Your task to perform on an android device: Open calendar and show me the third week of next month Image 0: 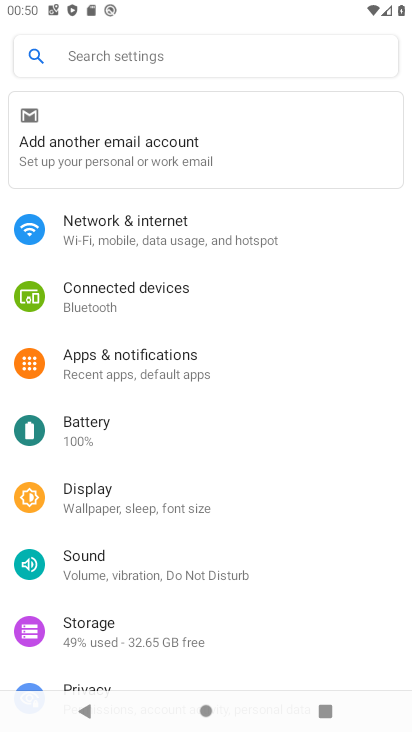
Step 0: drag from (35, 598) to (258, 79)
Your task to perform on an android device: Open calendar and show me the third week of next month Image 1: 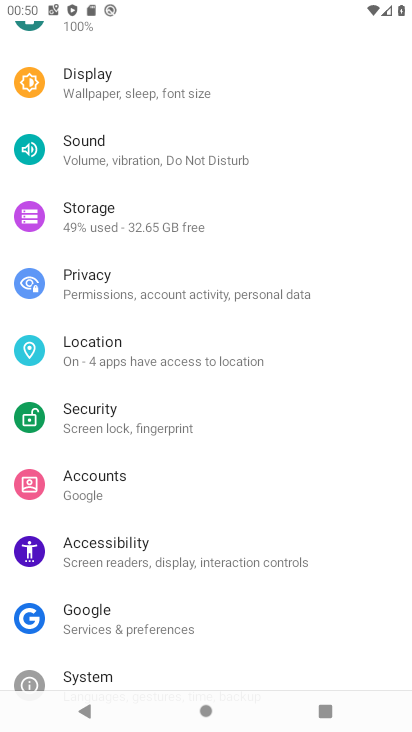
Step 1: press home button
Your task to perform on an android device: Open calendar and show me the third week of next month Image 2: 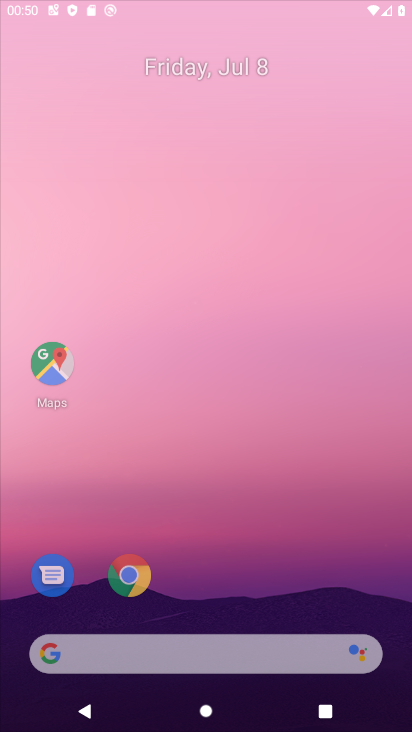
Step 2: drag from (225, 568) to (305, 2)
Your task to perform on an android device: Open calendar and show me the third week of next month Image 3: 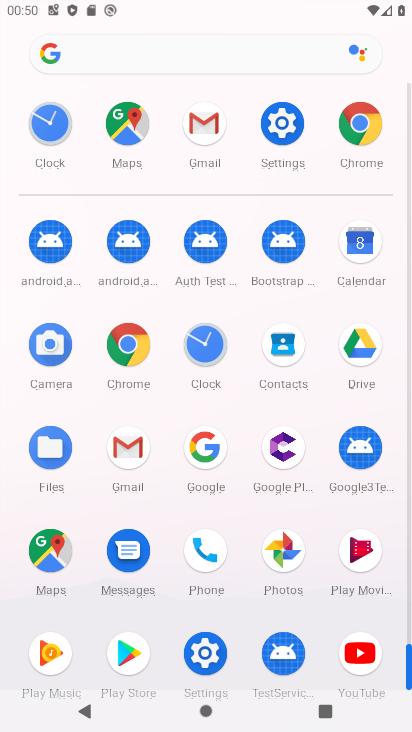
Step 3: click (344, 241)
Your task to perform on an android device: Open calendar and show me the third week of next month Image 4: 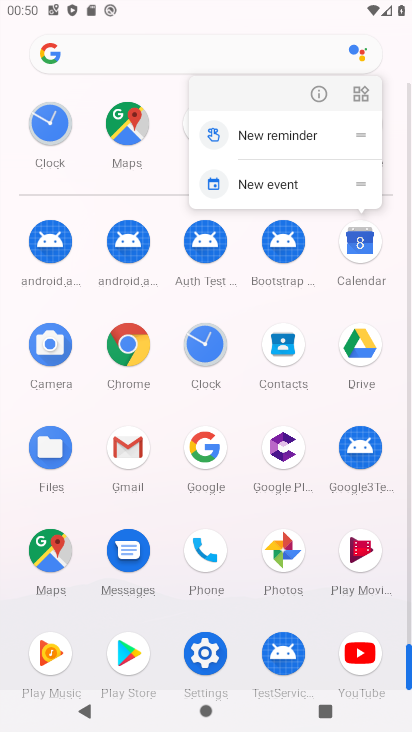
Step 4: click (321, 88)
Your task to perform on an android device: Open calendar and show me the third week of next month Image 5: 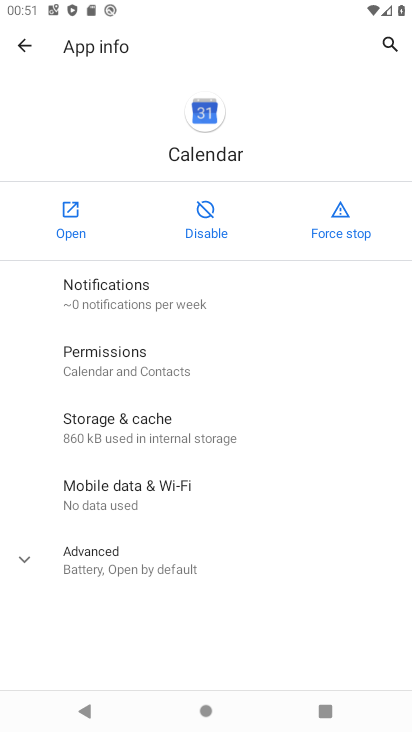
Step 5: click (70, 230)
Your task to perform on an android device: Open calendar and show me the third week of next month Image 6: 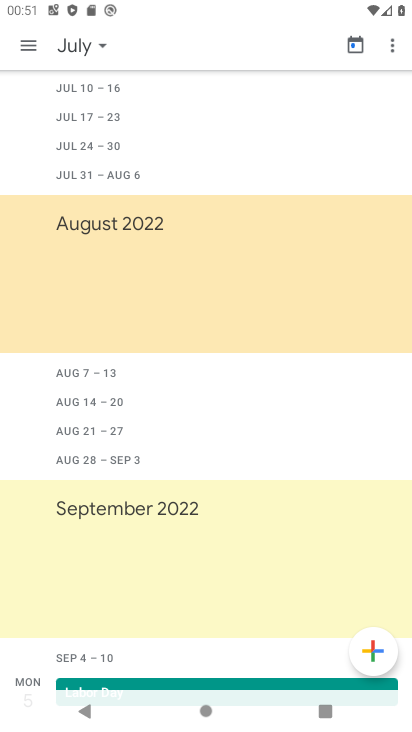
Step 6: click (90, 43)
Your task to perform on an android device: Open calendar and show me the third week of next month Image 7: 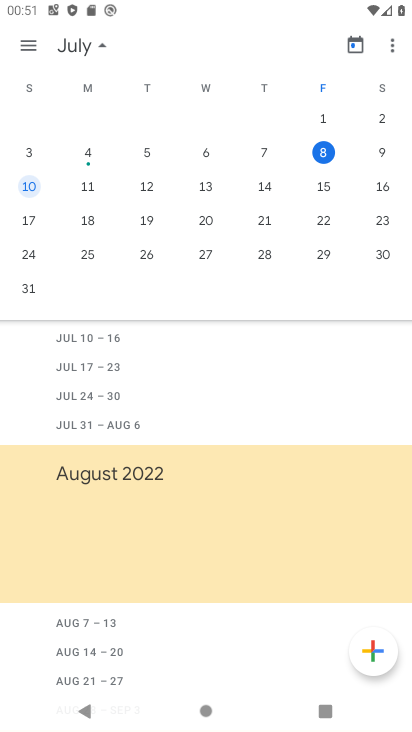
Step 7: click (382, 152)
Your task to perform on an android device: Open calendar and show me the third week of next month Image 8: 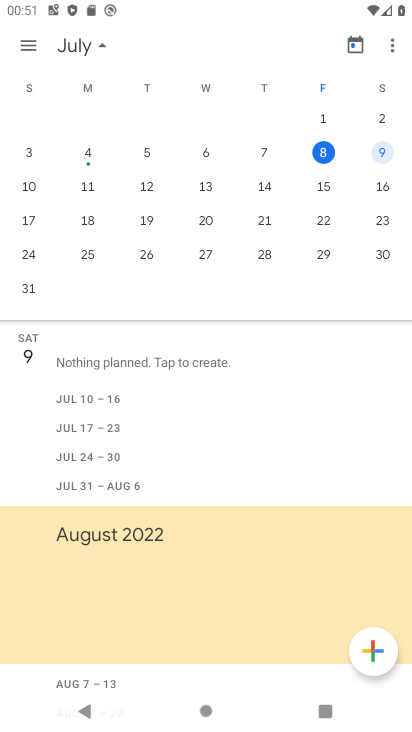
Step 8: drag from (215, 503) to (201, 358)
Your task to perform on an android device: Open calendar and show me the third week of next month Image 9: 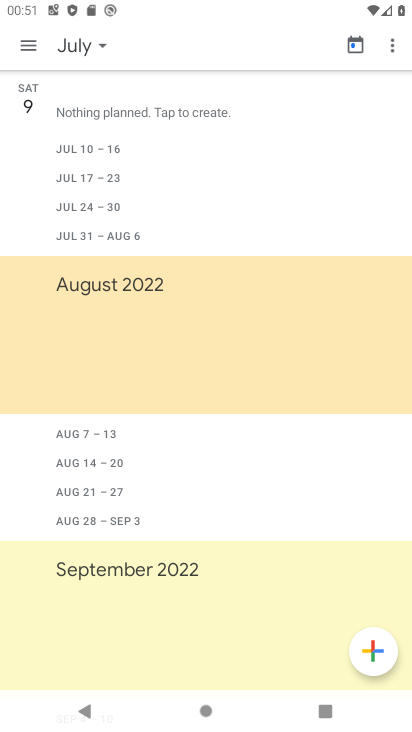
Step 9: drag from (305, 241) to (283, 559)
Your task to perform on an android device: Open calendar and show me the third week of next month Image 10: 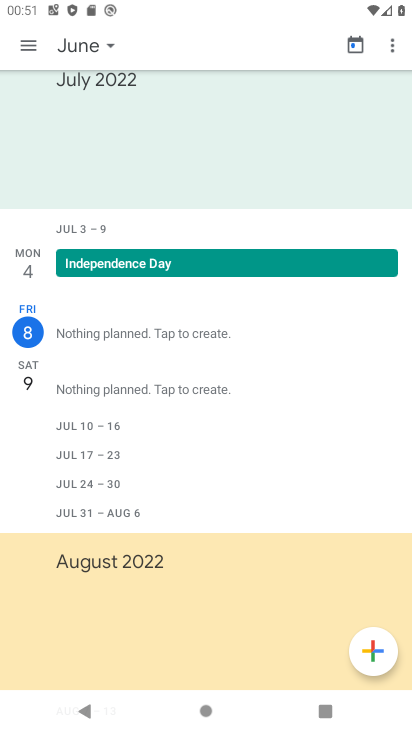
Step 10: click (90, 50)
Your task to perform on an android device: Open calendar and show me the third week of next month Image 11: 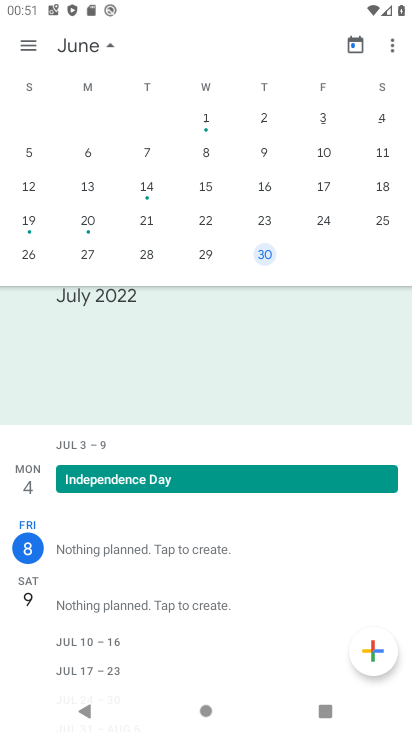
Step 11: drag from (339, 149) to (1, 123)
Your task to perform on an android device: Open calendar and show me the third week of next month Image 12: 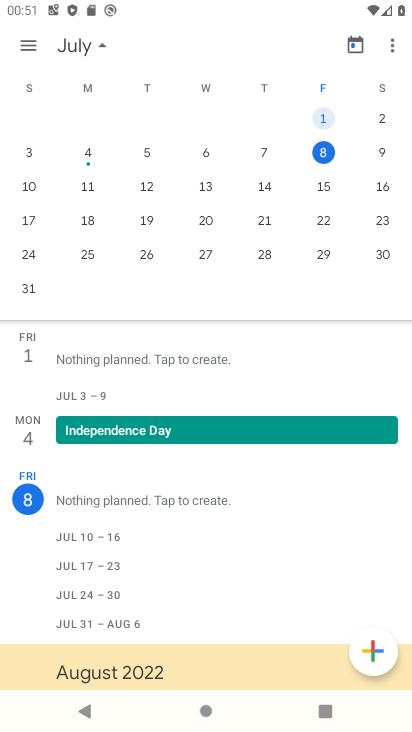
Step 12: click (70, 191)
Your task to perform on an android device: Open calendar and show me the third week of next month Image 13: 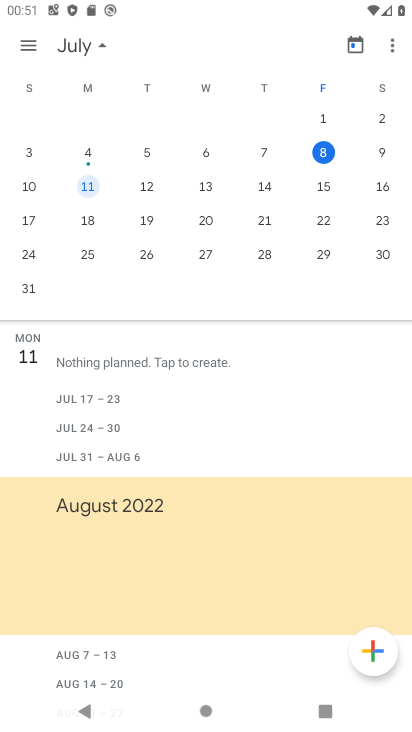
Step 13: task complete